Your task to perform on an android device: set the stopwatch Image 0: 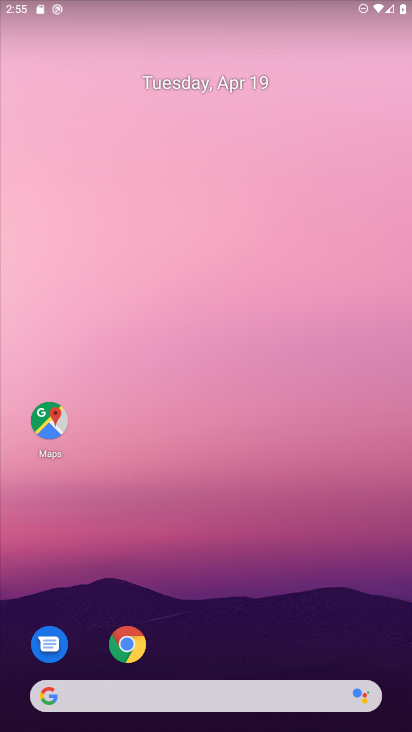
Step 0: drag from (210, 635) to (175, 276)
Your task to perform on an android device: set the stopwatch Image 1: 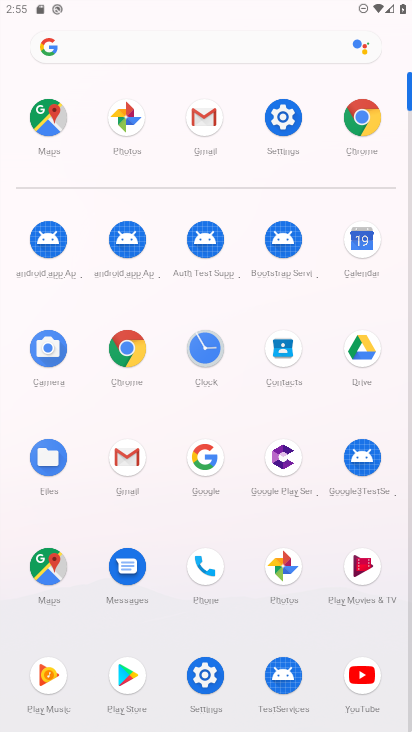
Step 1: click (212, 364)
Your task to perform on an android device: set the stopwatch Image 2: 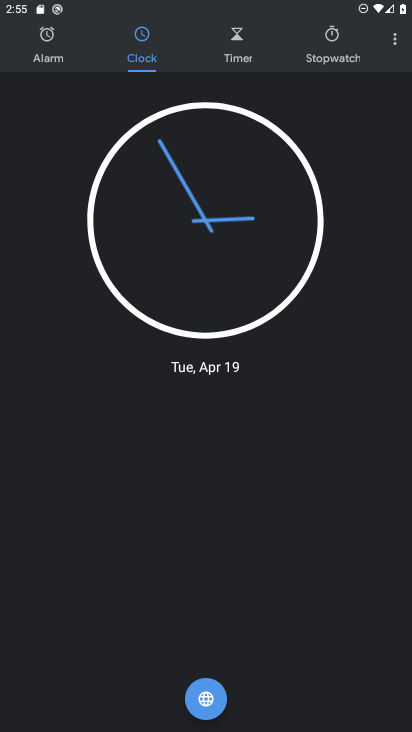
Step 2: click (336, 53)
Your task to perform on an android device: set the stopwatch Image 3: 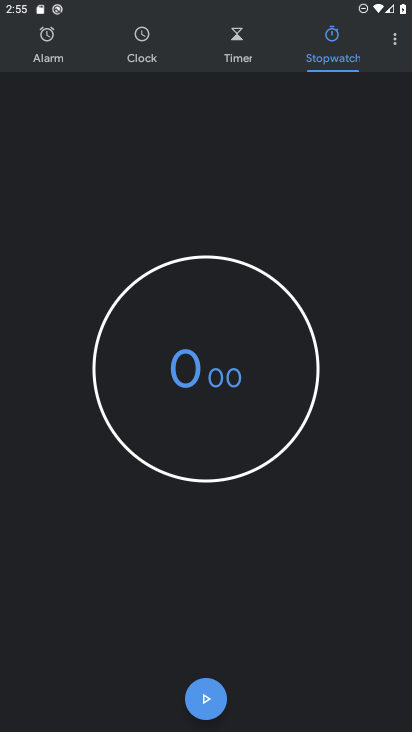
Step 3: click (205, 699)
Your task to perform on an android device: set the stopwatch Image 4: 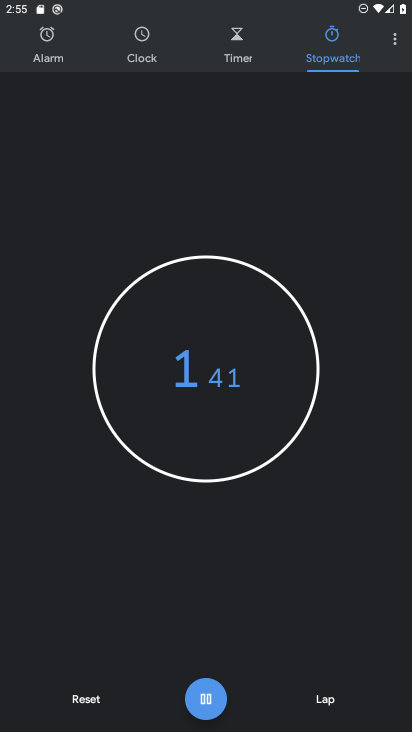
Step 4: click (329, 703)
Your task to perform on an android device: set the stopwatch Image 5: 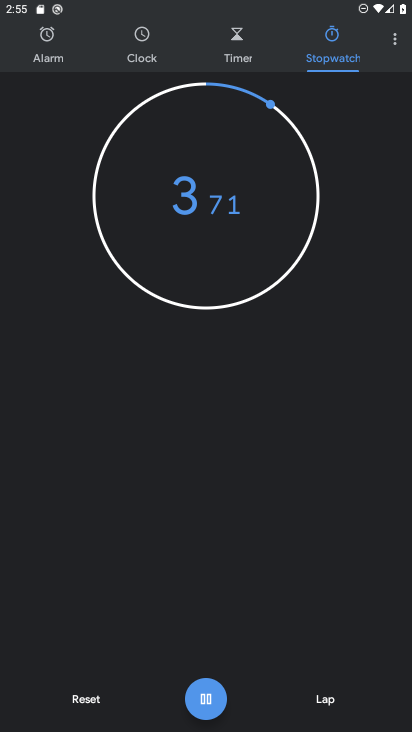
Step 5: click (330, 703)
Your task to perform on an android device: set the stopwatch Image 6: 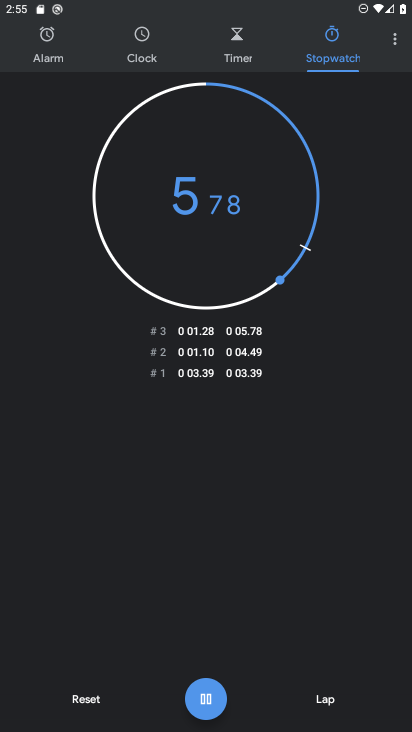
Step 6: click (331, 703)
Your task to perform on an android device: set the stopwatch Image 7: 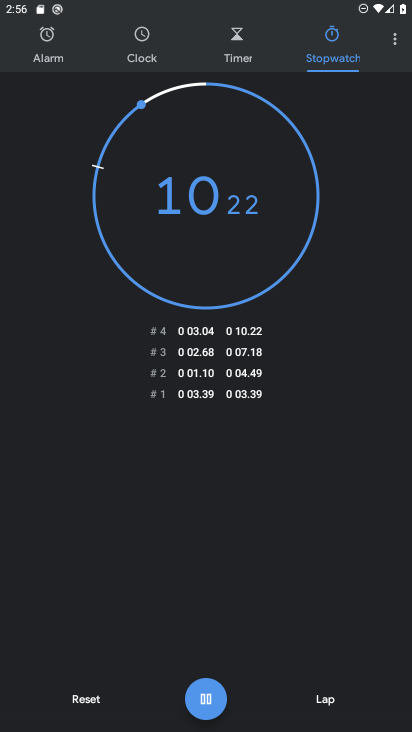
Step 7: click (333, 701)
Your task to perform on an android device: set the stopwatch Image 8: 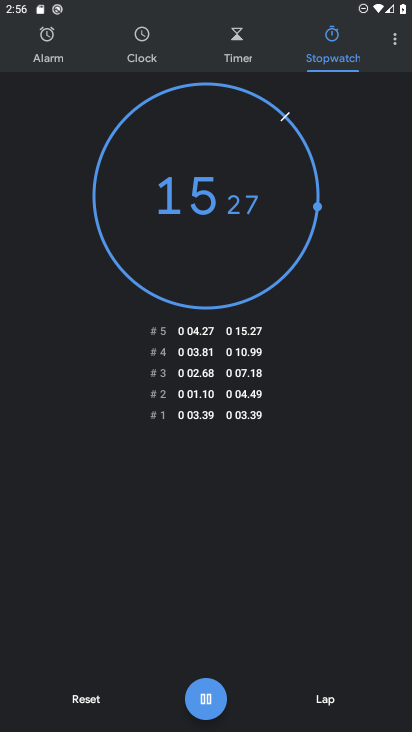
Step 8: click (334, 699)
Your task to perform on an android device: set the stopwatch Image 9: 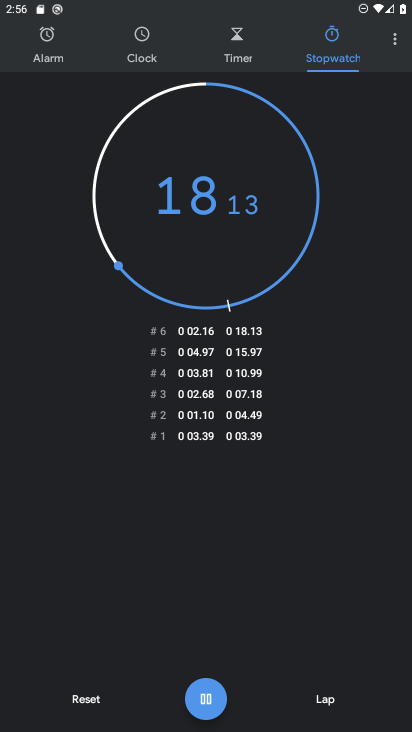
Step 9: click (334, 699)
Your task to perform on an android device: set the stopwatch Image 10: 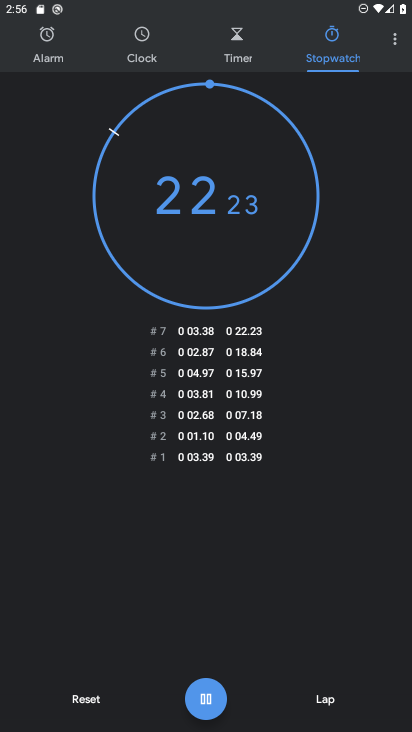
Step 10: click (334, 699)
Your task to perform on an android device: set the stopwatch Image 11: 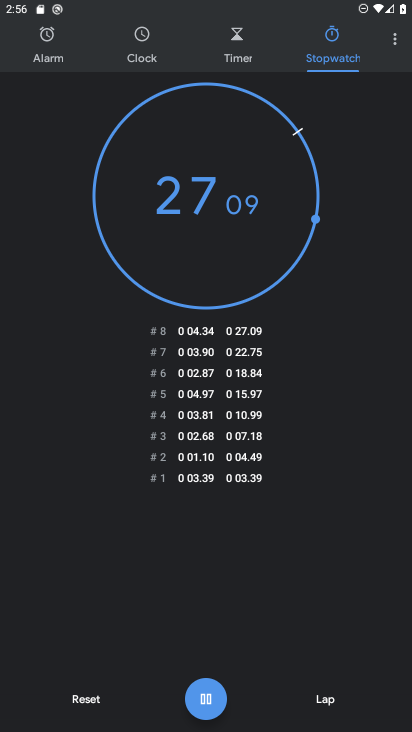
Step 11: click (334, 699)
Your task to perform on an android device: set the stopwatch Image 12: 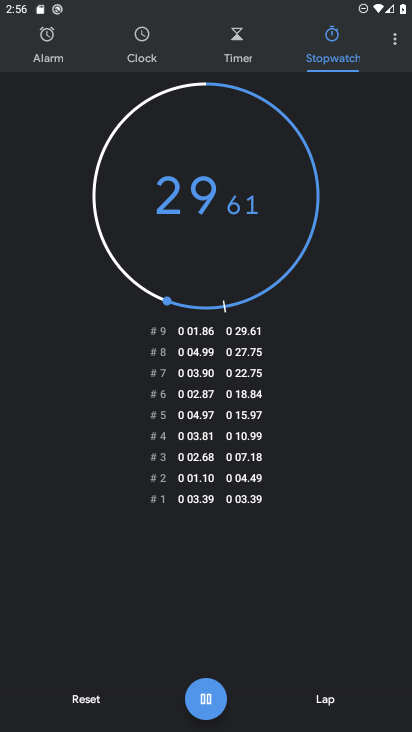
Step 12: click (216, 707)
Your task to perform on an android device: set the stopwatch Image 13: 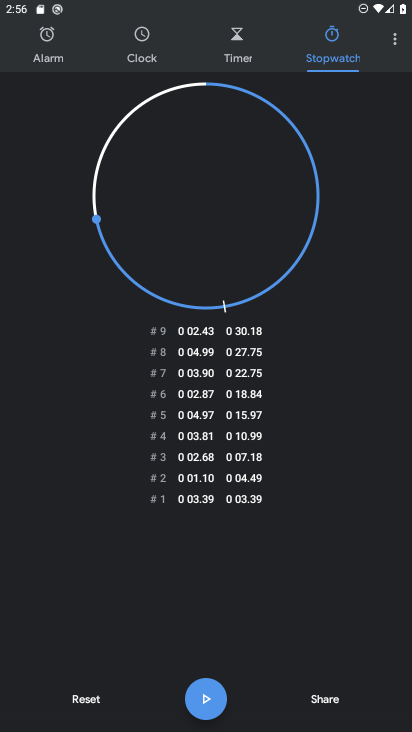
Step 13: task complete